Your task to perform on an android device: Do I have any events tomorrow? Image 0: 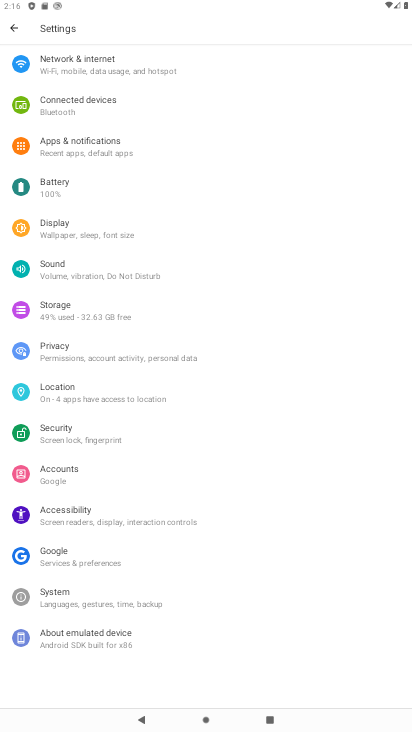
Step 0: press home button
Your task to perform on an android device: Do I have any events tomorrow? Image 1: 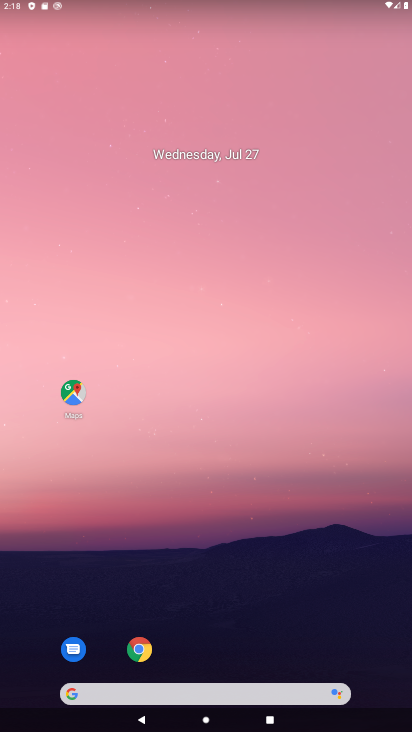
Step 1: drag from (297, 365) to (208, 49)
Your task to perform on an android device: Do I have any events tomorrow? Image 2: 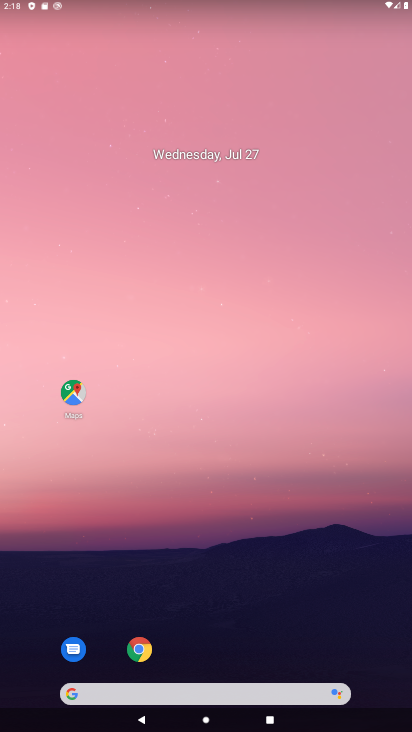
Step 2: drag from (329, 579) to (253, 2)
Your task to perform on an android device: Do I have any events tomorrow? Image 3: 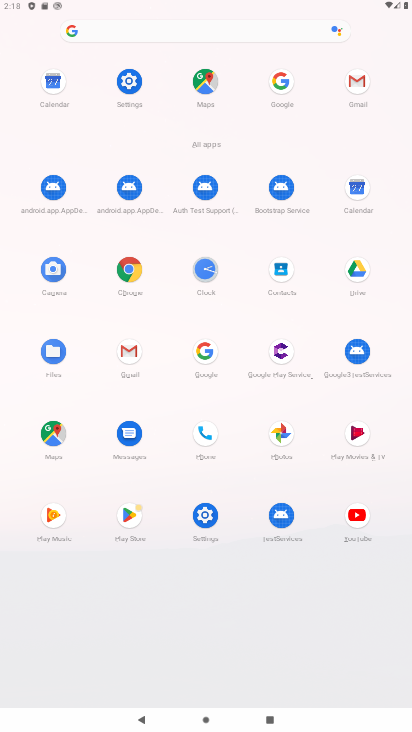
Step 3: click (352, 183)
Your task to perform on an android device: Do I have any events tomorrow? Image 4: 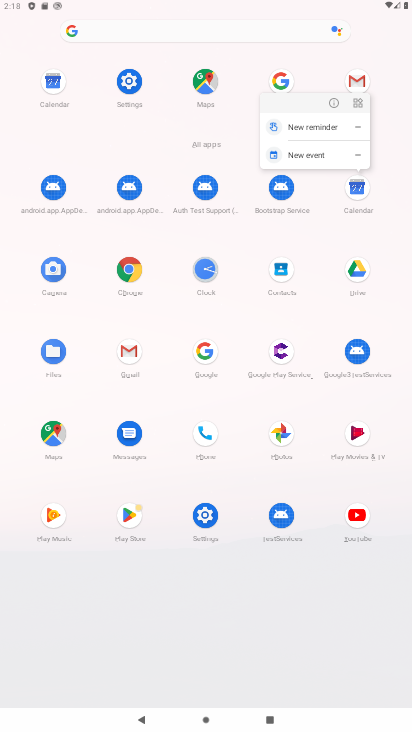
Step 4: click (356, 196)
Your task to perform on an android device: Do I have any events tomorrow? Image 5: 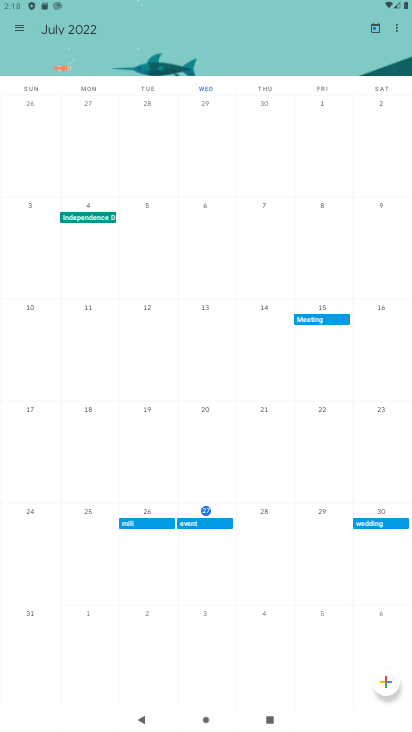
Step 5: task complete